Your task to perform on an android device: Search for sushi restaurants on Maps Image 0: 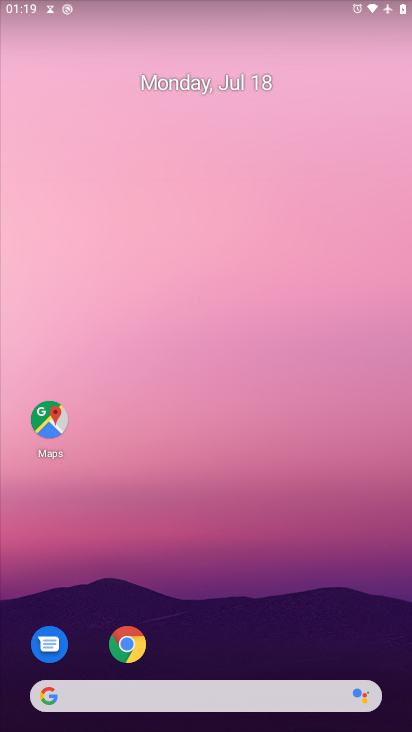
Step 0: press home button
Your task to perform on an android device: Search for sushi restaurants on Maps Image 1: 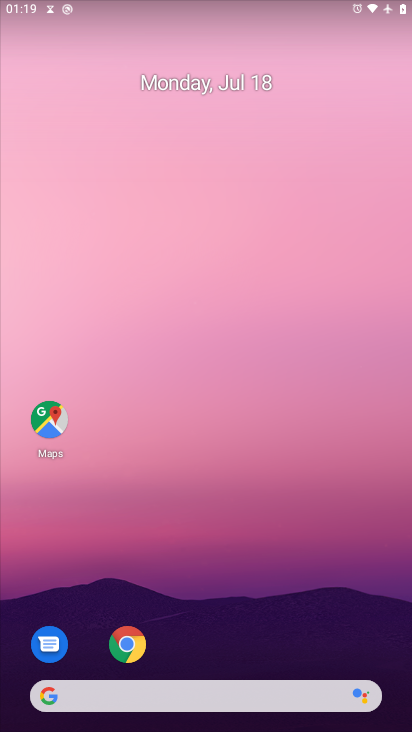
Step 1: drag from (256, 655) to (330, 90)
Your task to perform on an android device: Search for sushi restaurants on Maps Image 2: 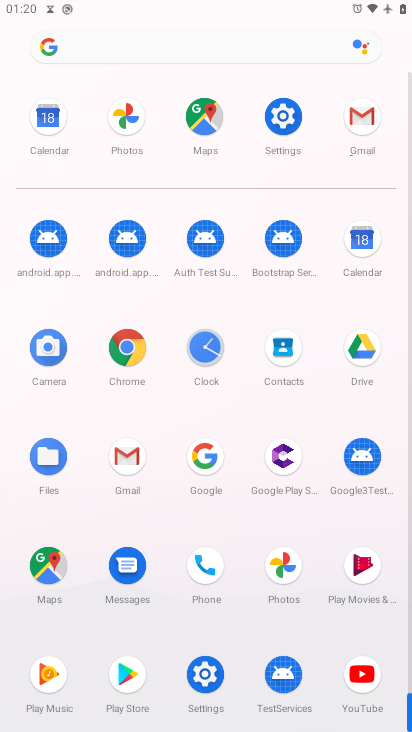
Step 2: click (199, 124)
Your task to perform on an android device: Search for sushi restaurants on Maps Image 3: 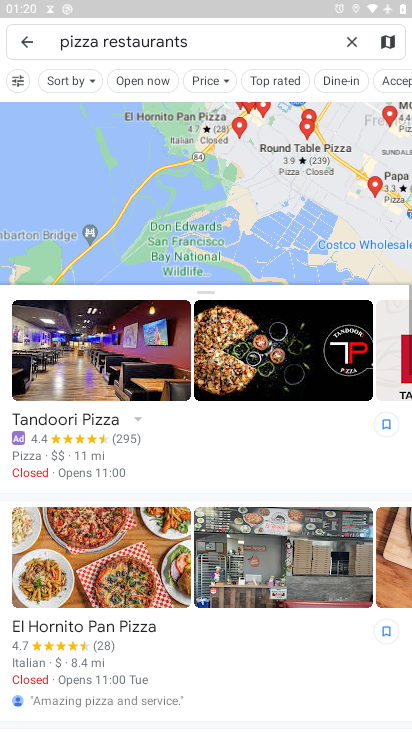
Step 3: click (351, 40)
Your task to perform on an android device: Search for sushi restaurants on Maps Image 4: 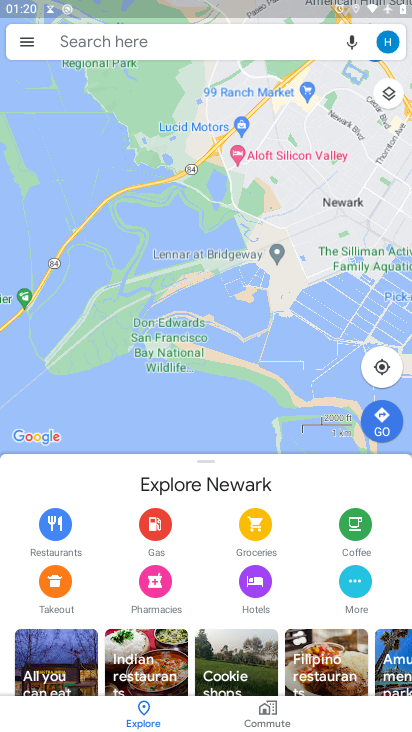
Step 4: click (188, 42)
Your task to perform on an android device: Search for sushi restaurants on Maps Image 5: 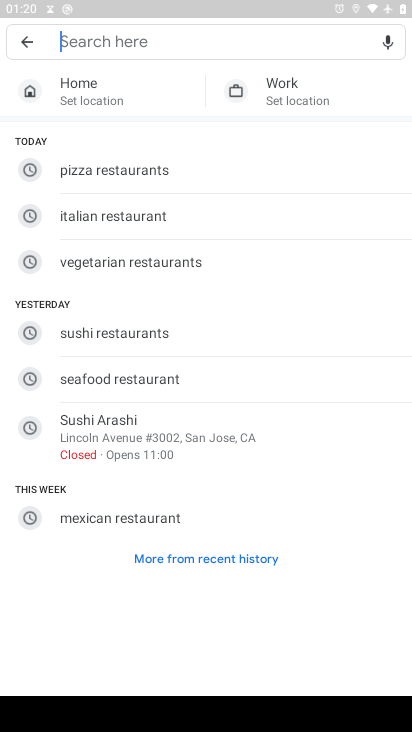
Step 5: click (117, 334)
Your task to perform on an android device: Search for sushi restaurants on Maps Image 6: 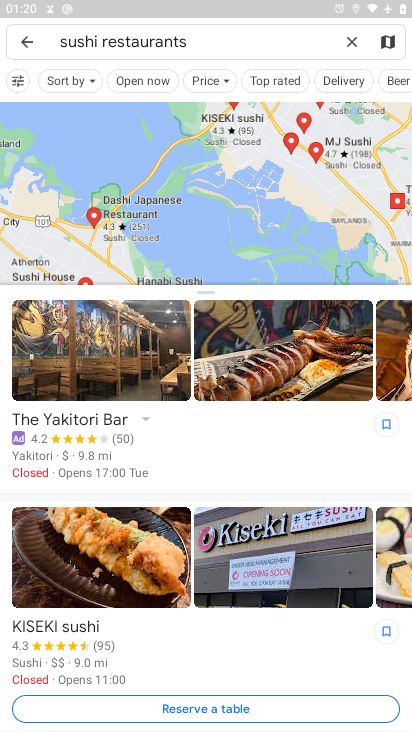
Step 6: task complete